Your task to perform on an android device: turn on location history Image 0: 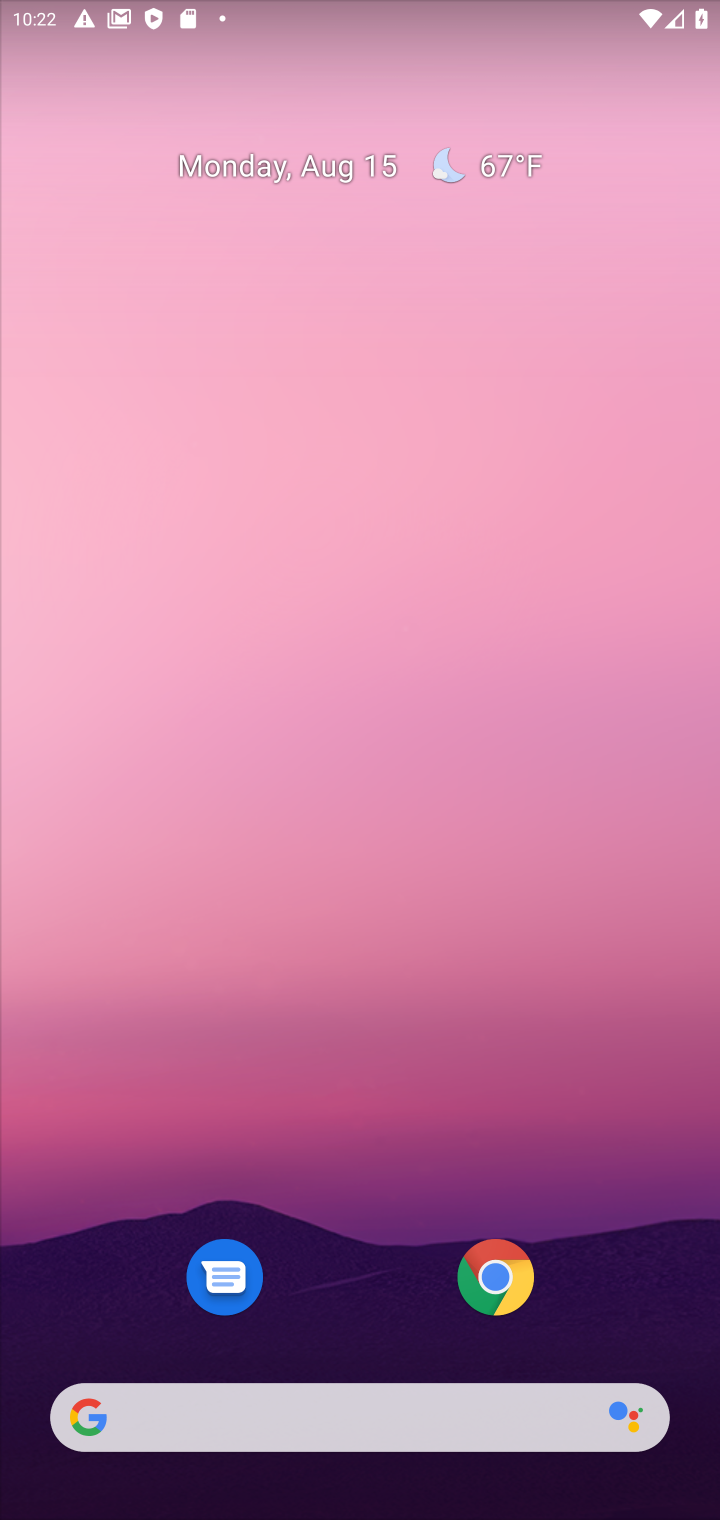
Step 0: drag from (347, 1172) to (465, 575)
Your task to perform on an android device: turn on location history Image 1: 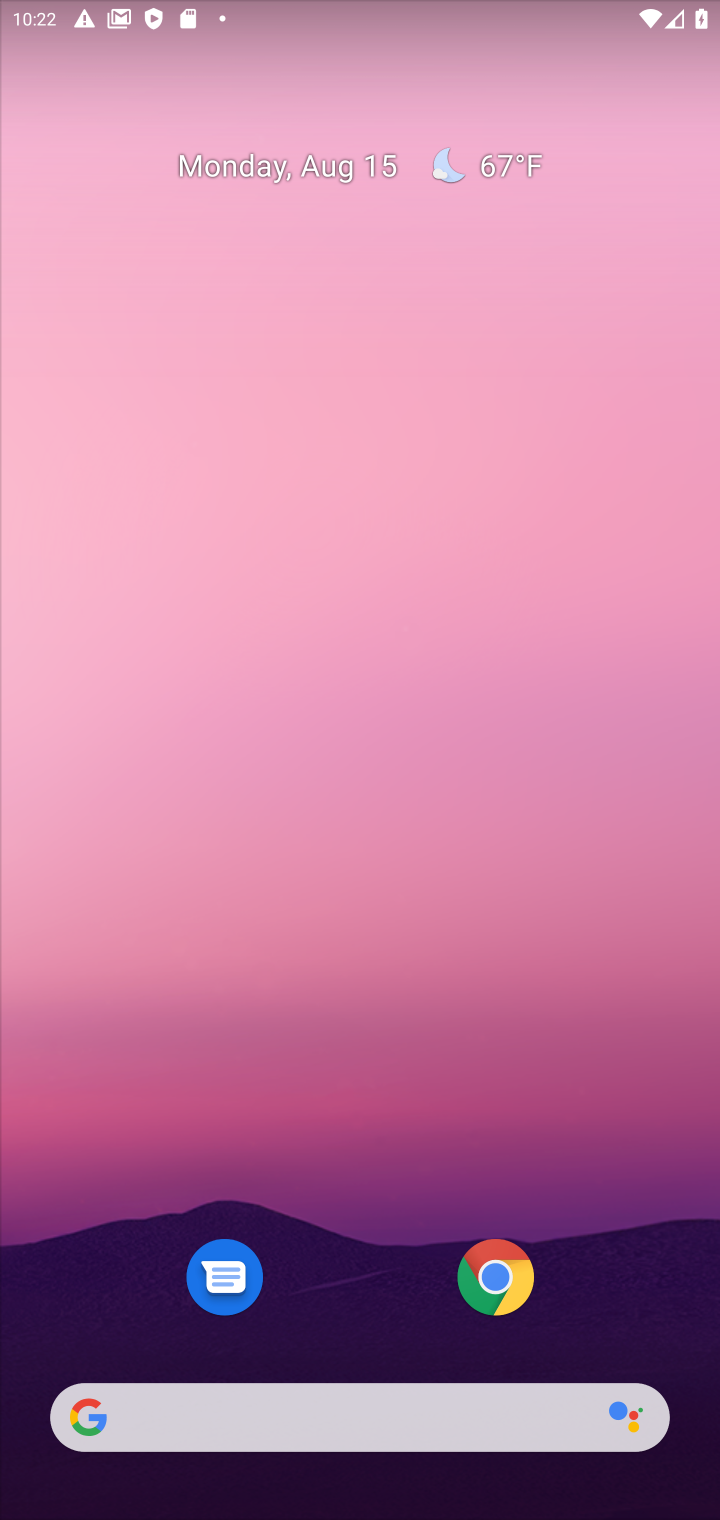
Step 1: drag from (364, 1399) to (450, 226)
Your task to perform on an android device: turn on location history Image 2: 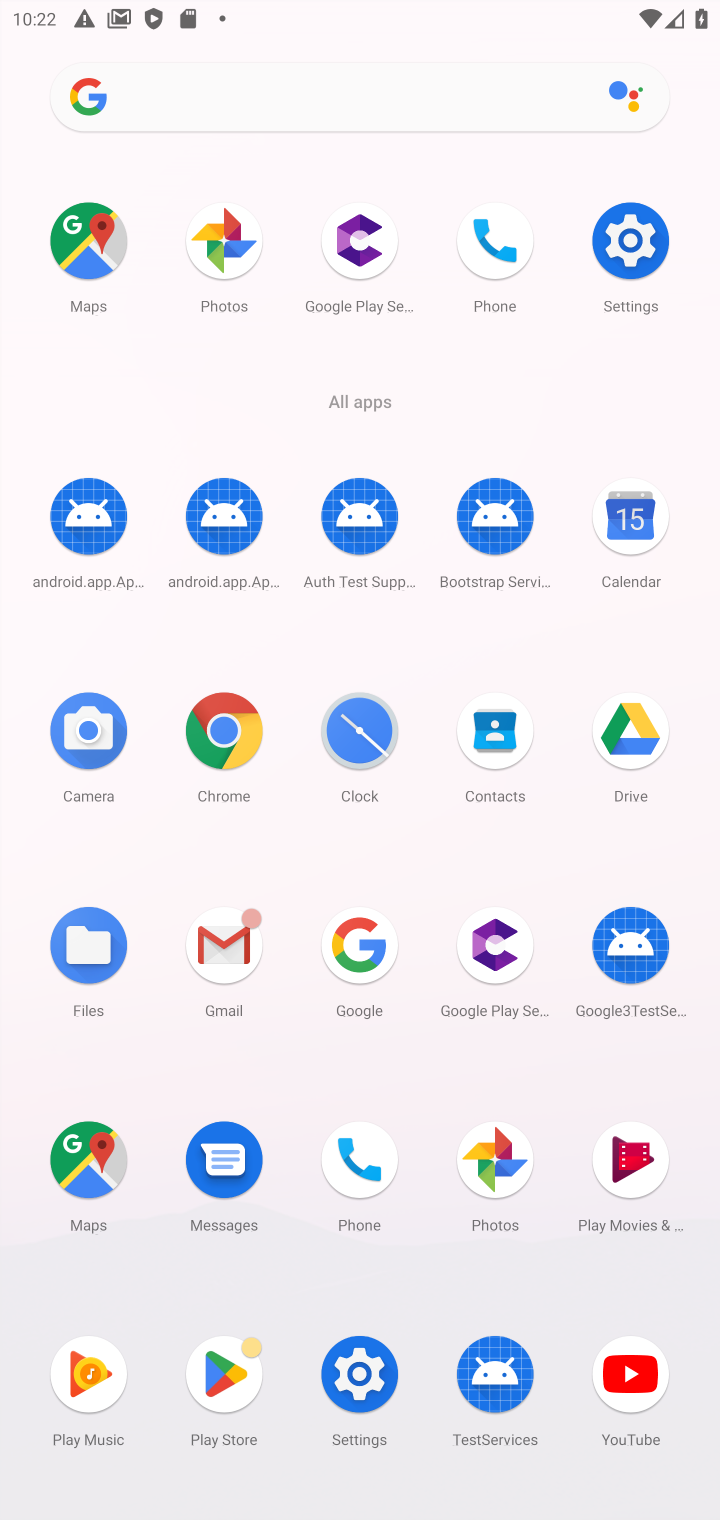
Step 2: click (631, 309)
Your task to perform on an android device: turn on location history Image 3: 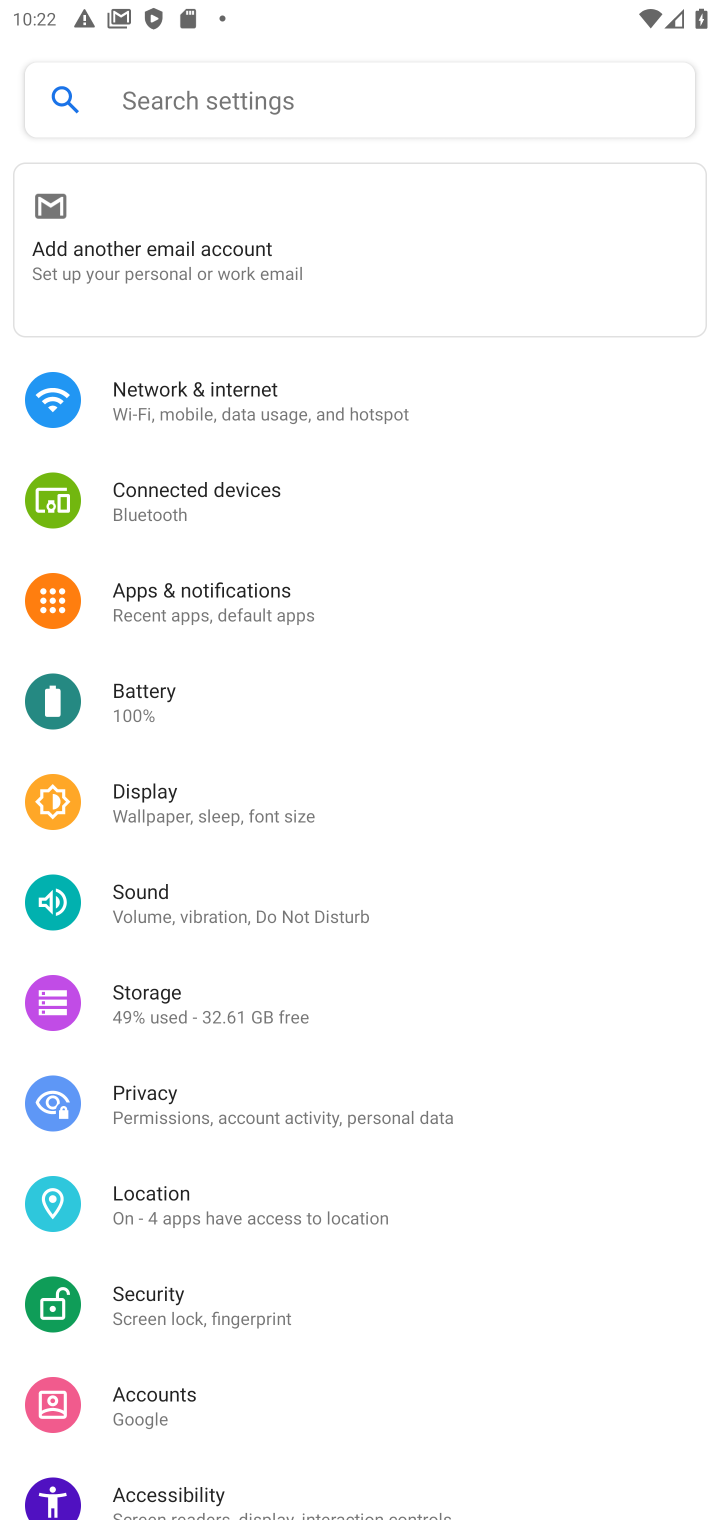
Step 3: click (256, 1202)
Your task to perform on an android device: turn on location history Image 4: 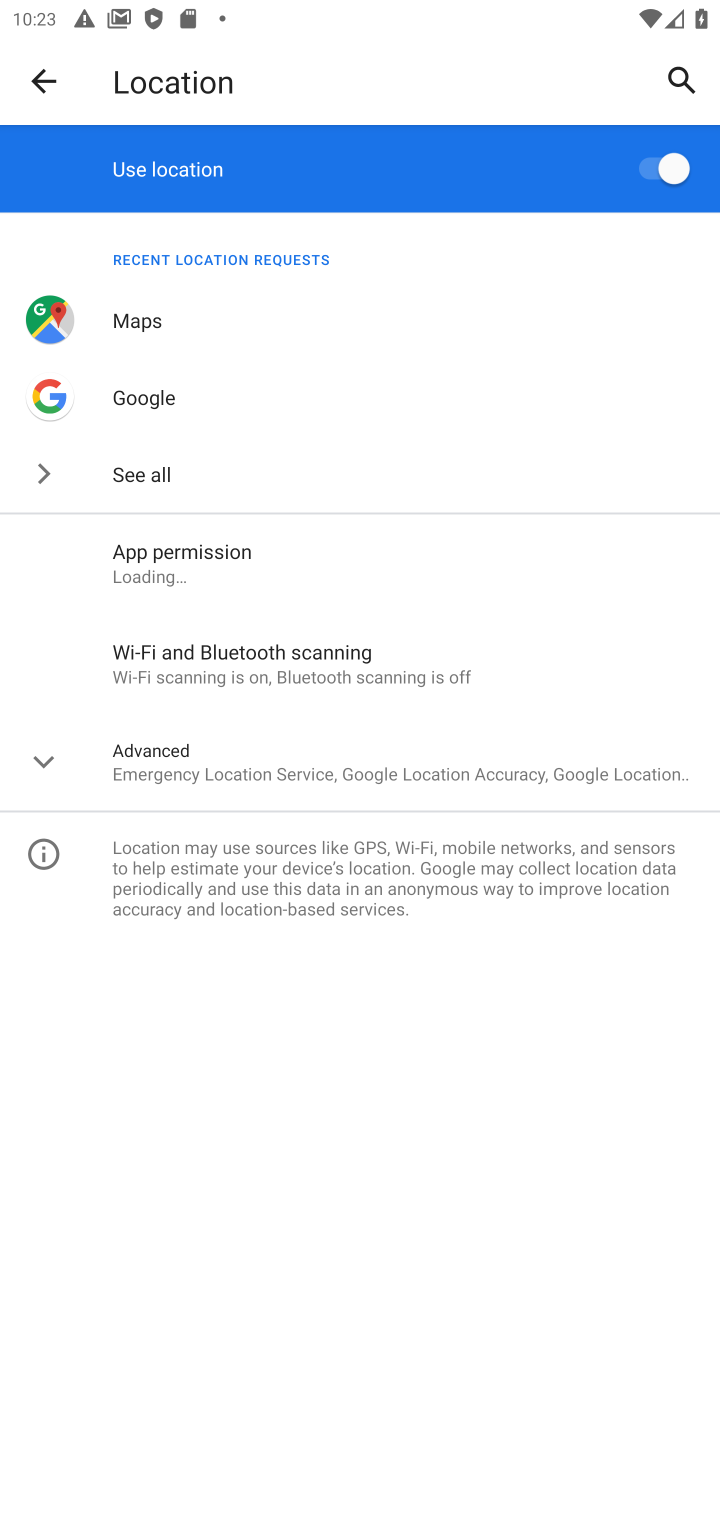
Step 4: click (300, 785)
Your task to perform on an android device: turn on location history Image 5: 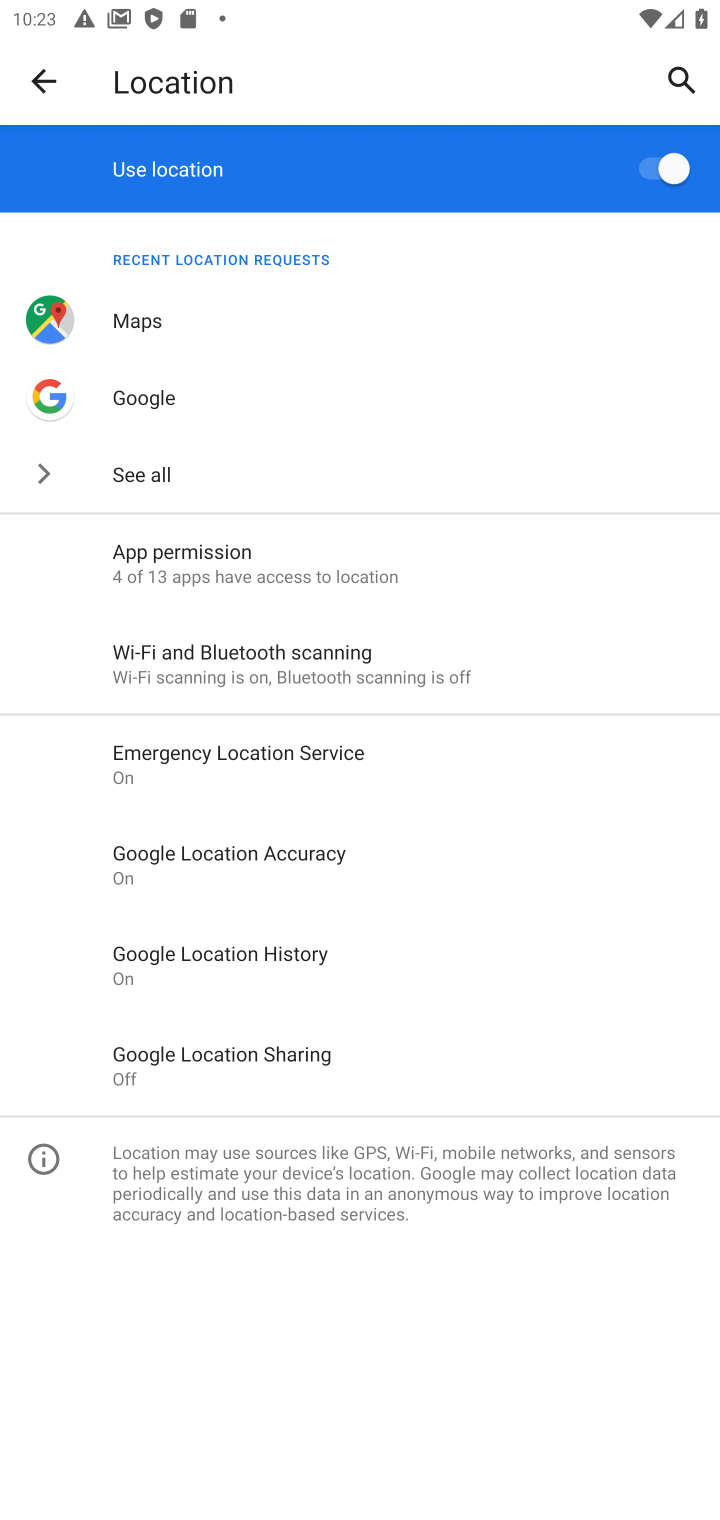
Step 5: click (338, 953)
Your task to perform on an android device: turn on location history Image 6: 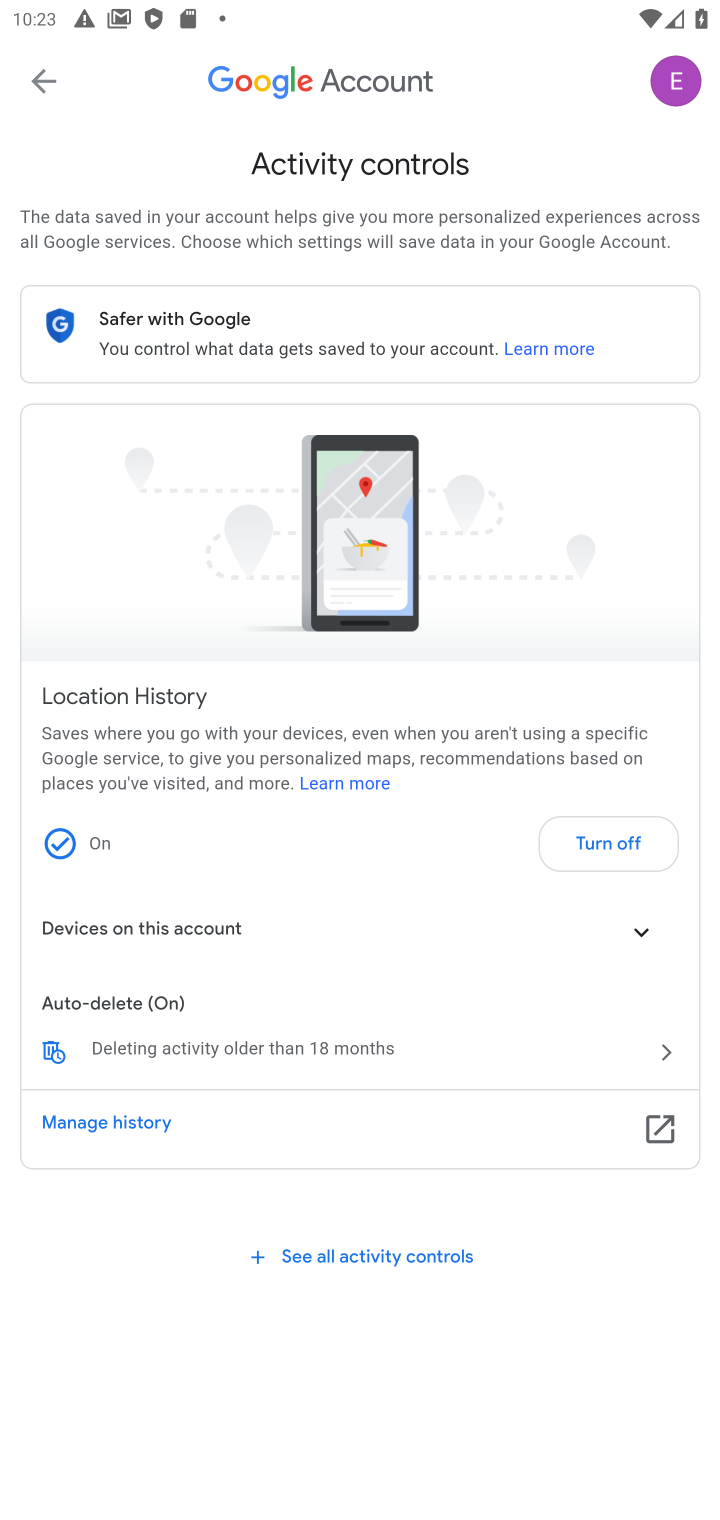
Step 6: task complete